Your task to perform on an android device: Open location settings Image 0: 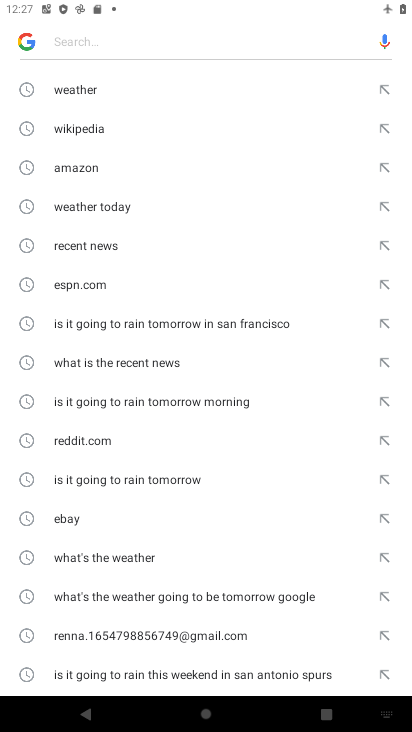
Step 0: press home button
Your task to perform on an android device: Open location settings Image 1: 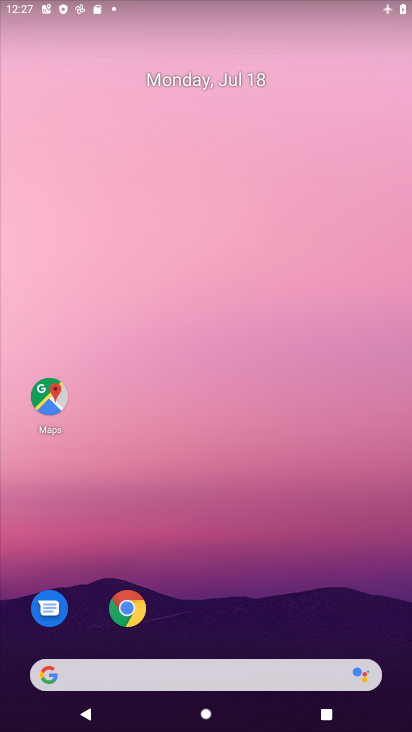
Step 1: drag from (405, 656) to (245, 93)
Your task to perform on an android device: Open location settings Image 2: 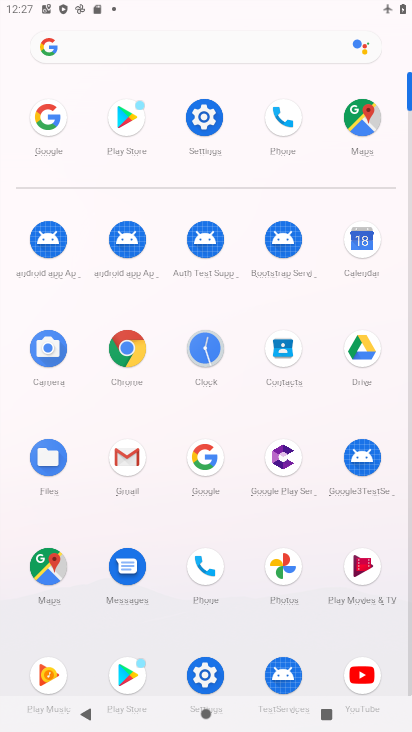
Step 2: click (217, 123)
Your task to perform on an android device: Open location settings Image 3: 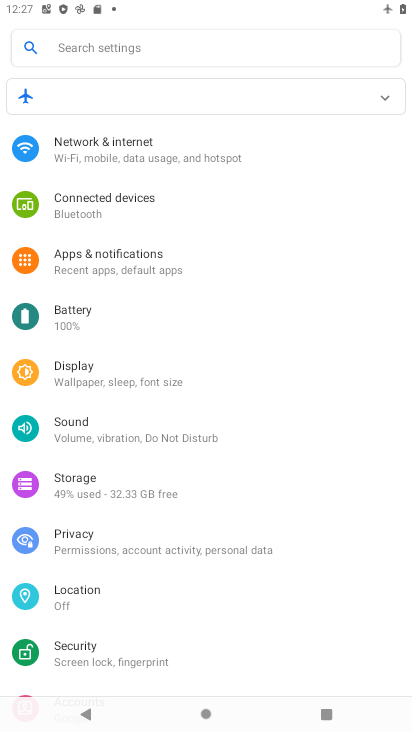
Step 3: click (97, 597)
Your task to perform on an android device: Open location settings Image 4: 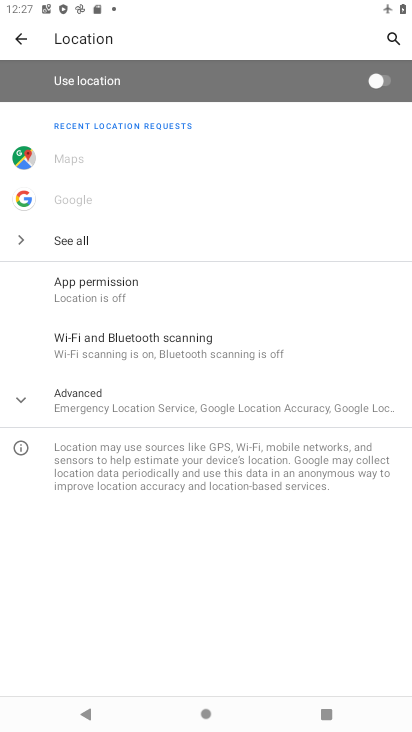
Step 4: task complete